Your task to perform on an android device: Go to sound settings Image 0: 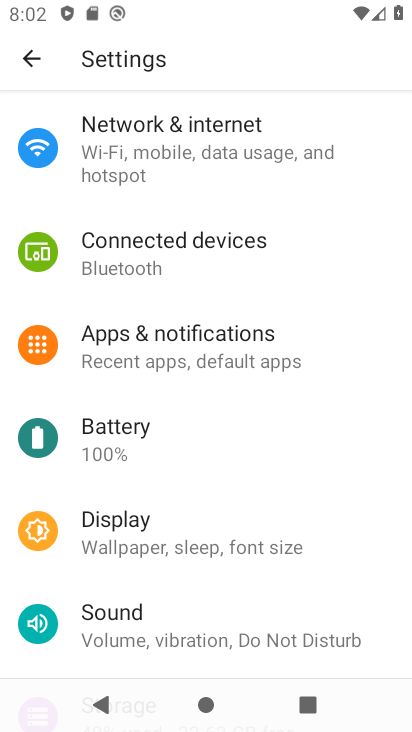
Step 0: click (243, 637)
Your task to perform on an android device: Go to sound settings Image 1: 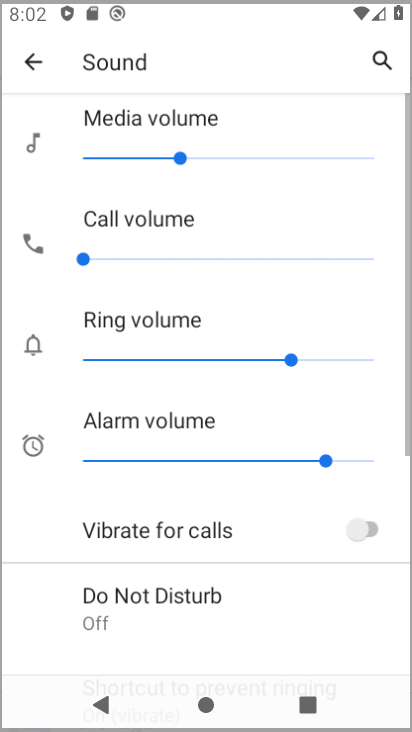
Step 1: task complete